Your task to perform on an android device: turn vacation reply on in the gmail app Image 0: 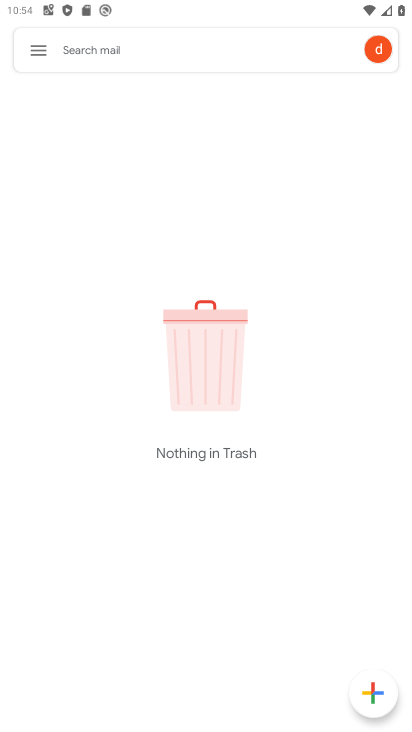
Step 0: click (33, 47)
Your task to perform on an android device: turn vacation reply on in the gmail app Image 1: 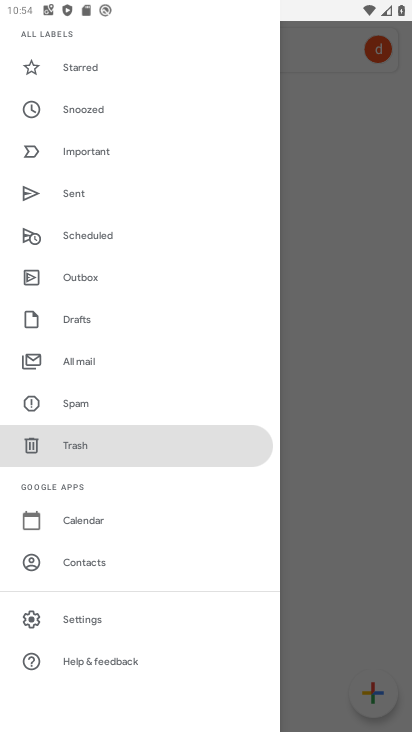
Step 1: click (95, 628)
Your task to perform on an android device: turn vacation reply on in the gmail app Image 2: 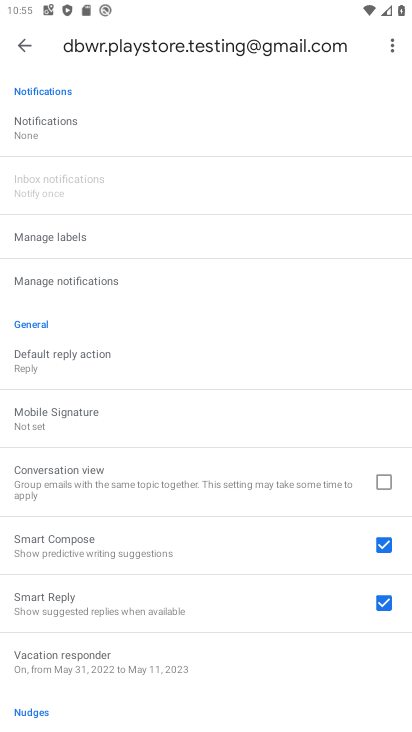
Step 2: task complete